Your task to perform on an android device: create a new album in the google photos Image 0: 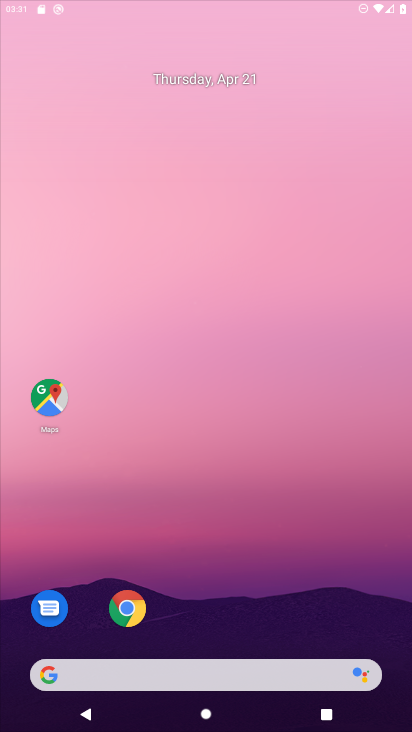
Step 0: drag from (236, 640) to (210, 113)
Your task to perform on an android device: create a new album in the google photos Image 1: 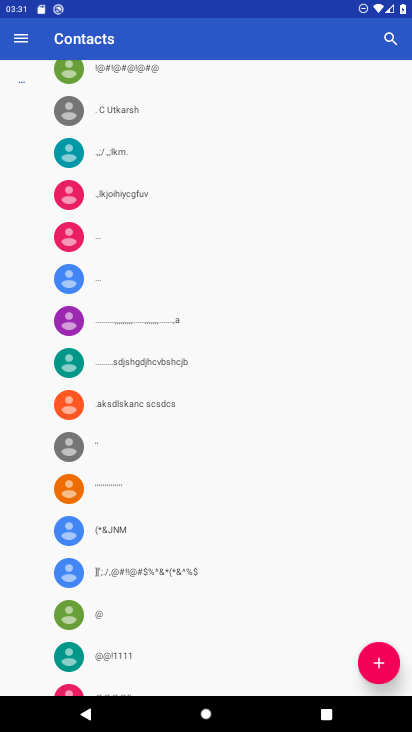
Step 1: press home button
Your task to perform on an android device: create a new album in the google photos Image 2: 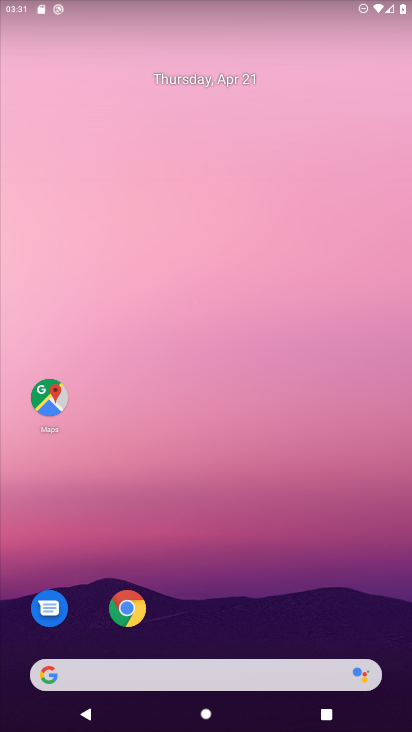
Step 2: drag from (265, 643) to (253, 185)
Your task to perform on an android device: create a new album in the google photos Image 3: 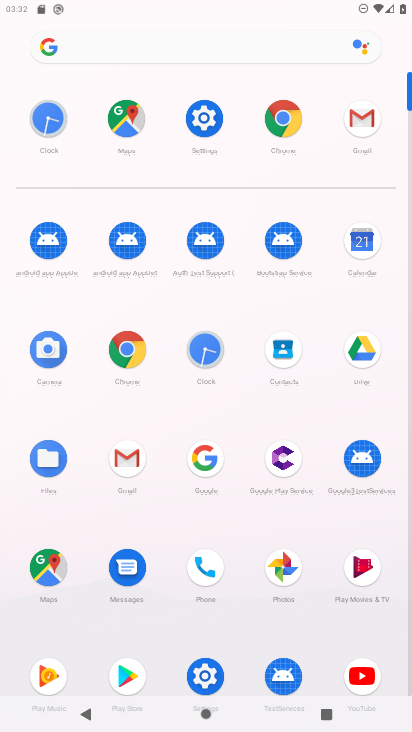
Step 3: click (279, 560)
Your task to perform on an android device: create a new album in the google photos Image 4: 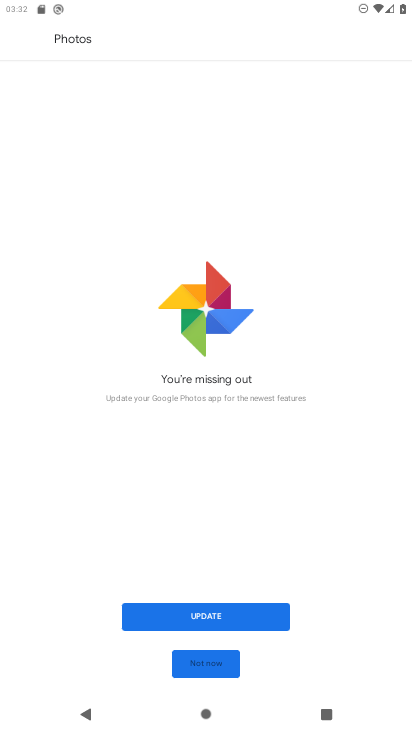
Step 4: click (198, 658)
Your task to perform on an android device: create a new album in the google photos Image 5: 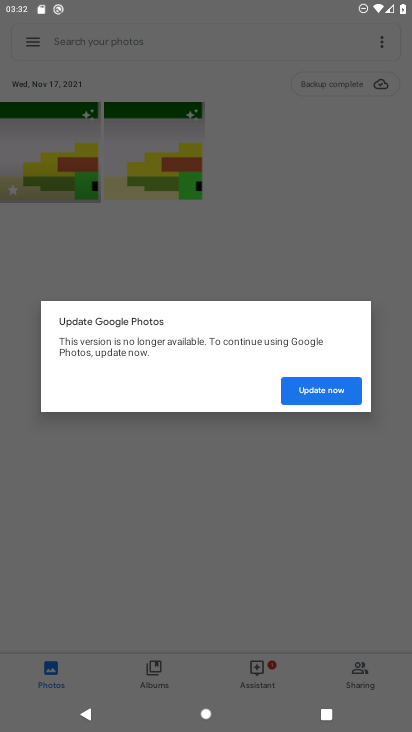
Step 5: click (336, 391)
Your task to perform on an android device: create a new album in the google photos Image 6: 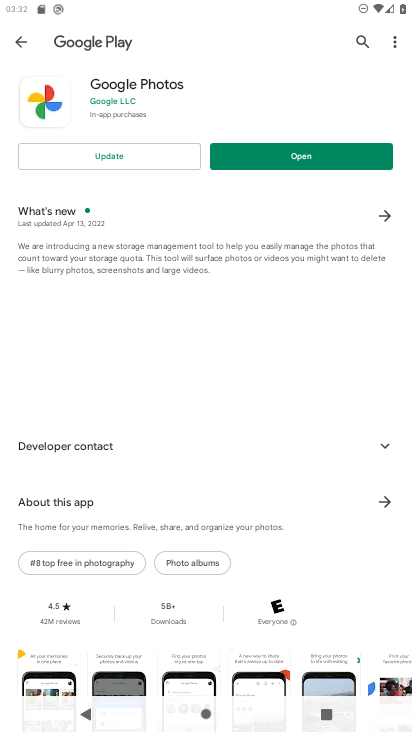
Step 6: press back button
Your task to perform on an android device: create a new album in the google photos Image 7: 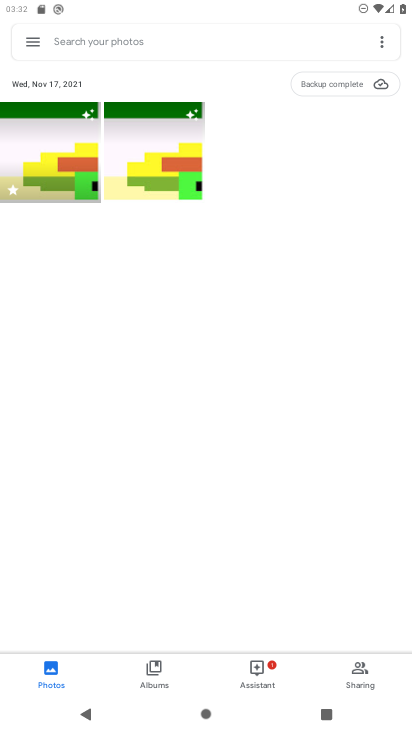
Step 7: click (50, 158)
Your task to perform on an android device: create a new album in the google photos Image 8: 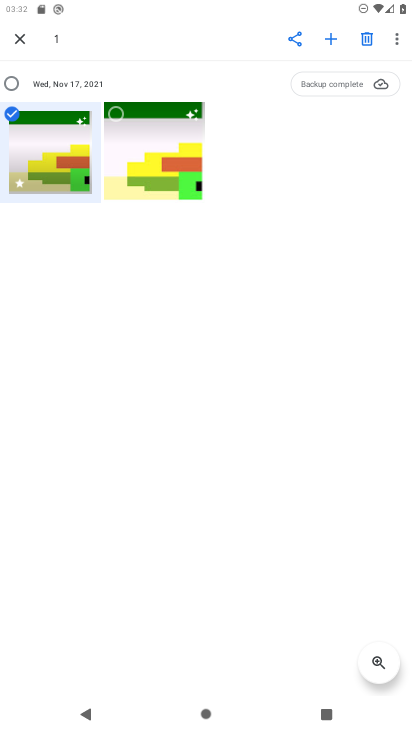
Step 8: click (325, 39)
Your task to perform on an android device: create a new album in the google photos Image 9: 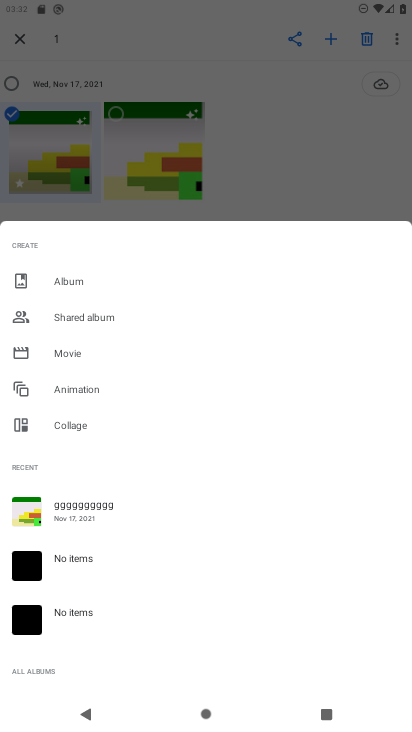
Step 9: click (83, 275)
Your task to perform on an android device: create a new album in the google photos Image 10: 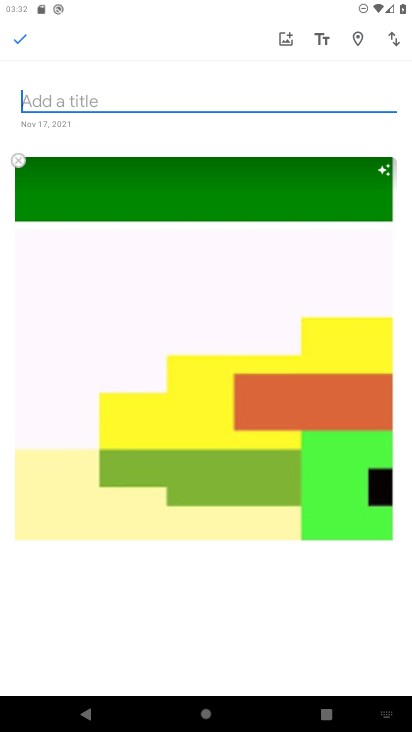
Step 10: click (106, 84)
Your task to perform on an android device: create a new album in the google photos Image 11: 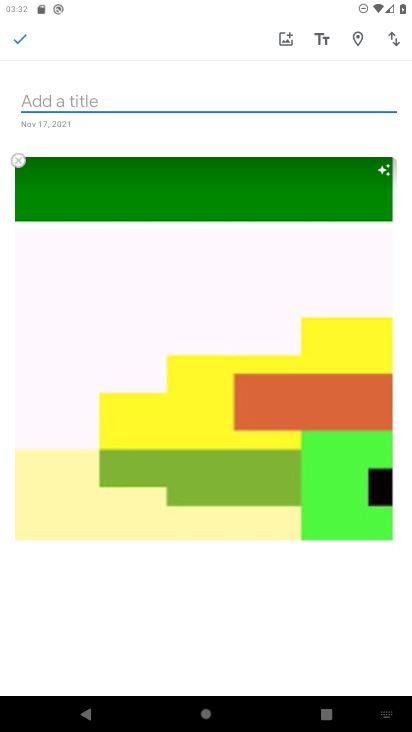
Step 11: type "98989898989898989898"
Your task to perform on an android device: create a new album in the google photos Image 12: 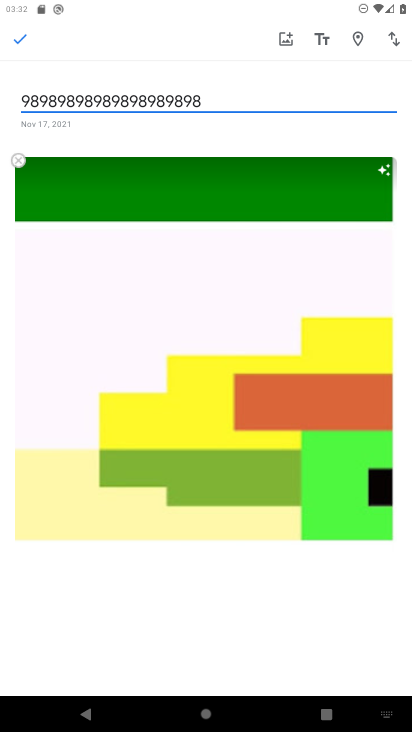
Step 12: click (240, 90)
Your task to perform on an android device: create a new album in the google photos Image 13: 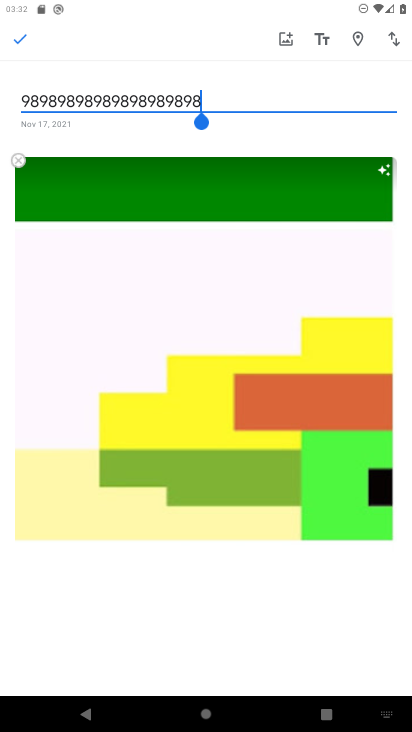
Step 13: task complete